Your task to perform on an android device: Add usb-c to usb-b to the cart on target.com Image 0: 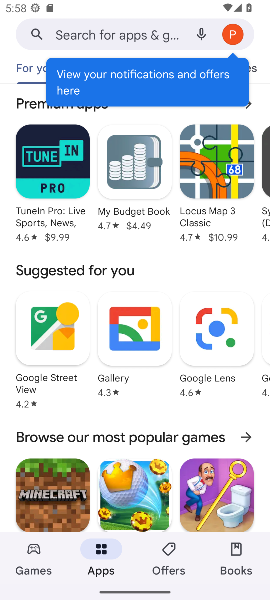
Step 0: press home button
Your task to perform on an android device: Add usb-c to usb-b to the cart on target.com Image 1: 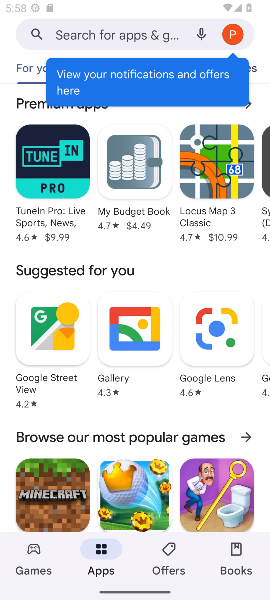
Step 1: press home button
Your task to perform on an android device: Add usb-c to usb-b to the cart on target.com Image 2: 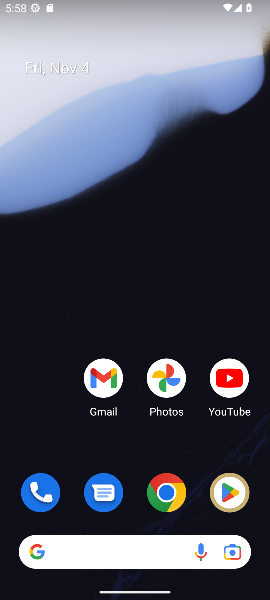
Step 2: drag from (132, 351) to (157, 58)
Your task to perform on an android device: Add usb-c to usb-b to the cart on target.com Image 3: 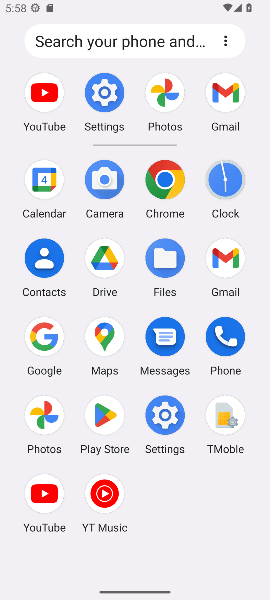
Step 3: click (160, 175)
Your task to perform on an android device: Add usb-c to usb-b to the cart on target.com Image 4: 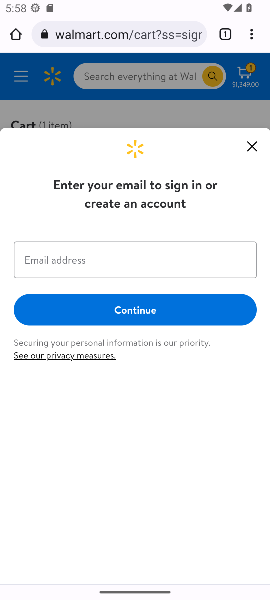
Step 4: click (139, 42)
Your task to perform on an android device: Add usb-c to usb-b to the cart on target.com Image 5: 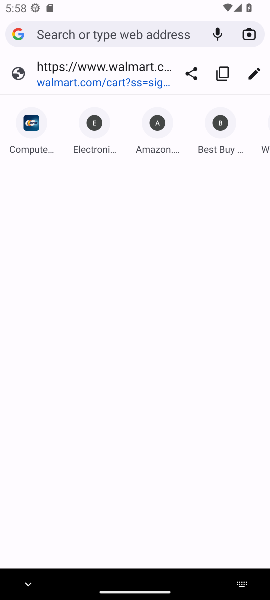
Step 5: type "target.com"
Your task to perform on an android device: Add usb-c to usb-b to the cart on target.com Image 6: 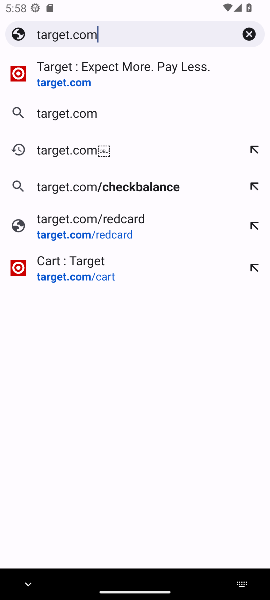
Step 6: press enter
Your task to perform on an android device: Add usb-c to usb-b to the cart on target.com Image 7: 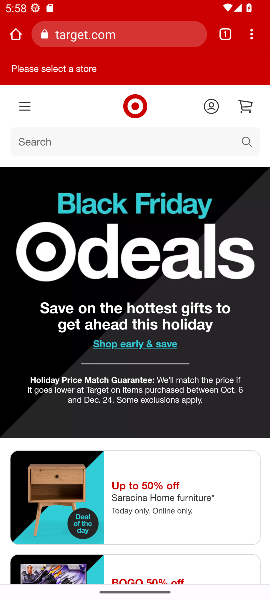
Step 7: click (244, 140)
Your task to perform on an android device: Add usb-c to usb-b to the cart on target.com Image 8: 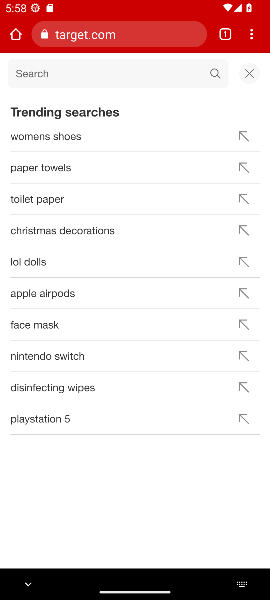
Step 8: type "usb-c to usb-b"
Your task to perform on an android device: Add usb-c to usb-b to the cart on target.com Image 9: 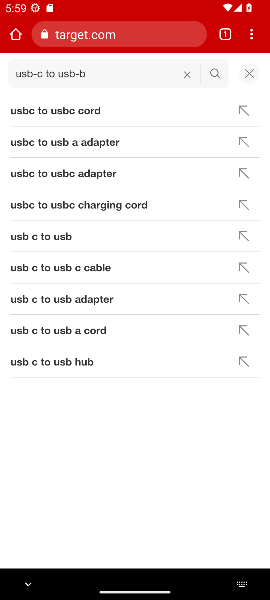
Step 9: press enter
Your task to perform on an android device: Add usb-c to usb-b to the cart on target.com Image 10: 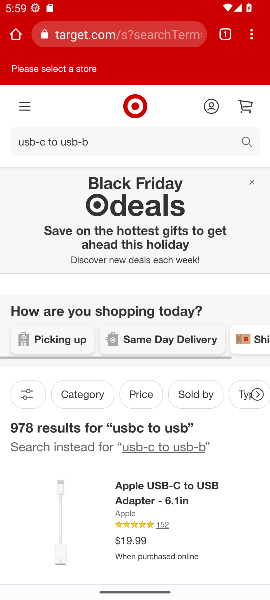
Step 10: task complete